Your task to perform on an android device: toggle wifi Image 0: 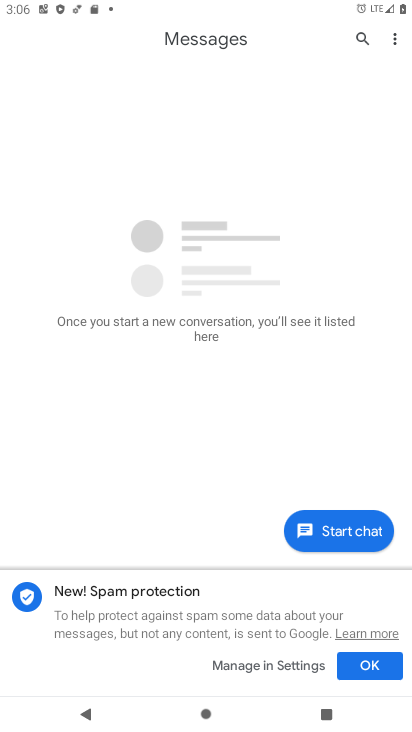
Step 0: drag from (282, 14) to (244, 348)
Your task to perform on an android device: toggle wifi Image 1: 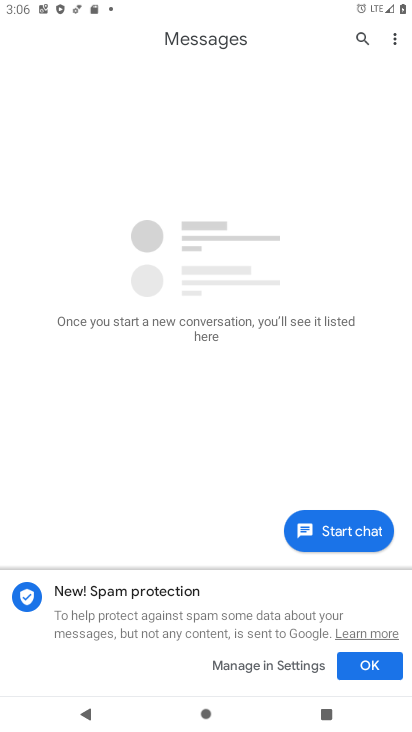
Step 1: drag from (147, 5) to (254, 710)
Your task to perform on an android device: toggle wifi Image 2: 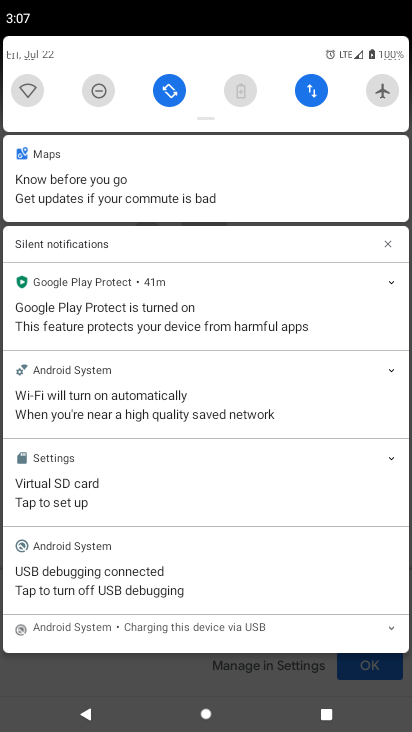
Step 2: click (32, 91)
Your task to perform on an android device: toggle wifi Image 3: 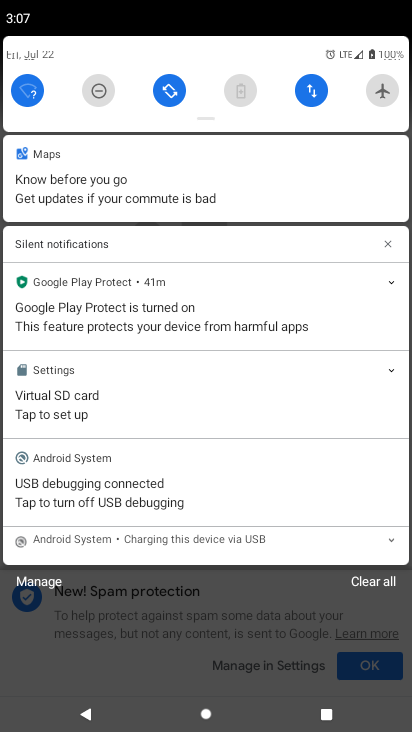
Step 3: task complete